Your task to perform on an android device: change keyboard looks Image 0: 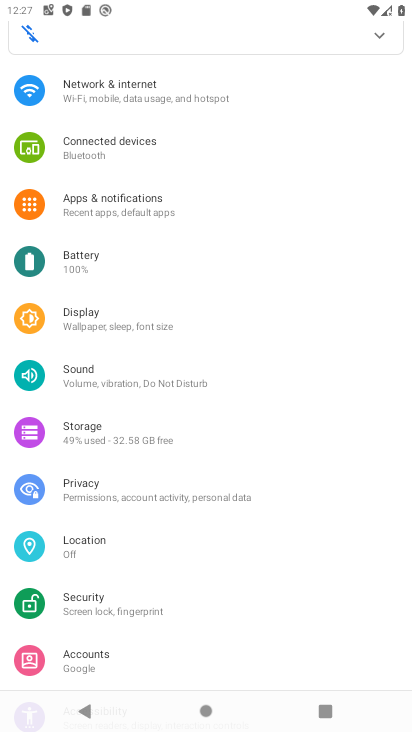
Step 0: drag from (240, 593) to (266, 244)
Your task to perform on an android device: change keyboard looks Image 1: 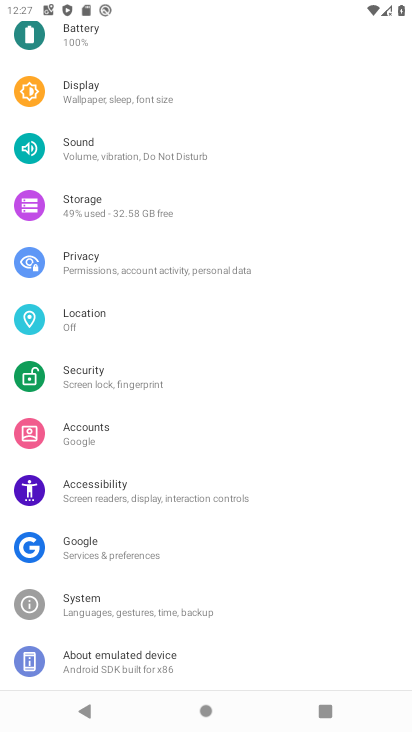
Step 1: click (165, 493)
Your task to perform on an android device: change keyboard looks Image 2: 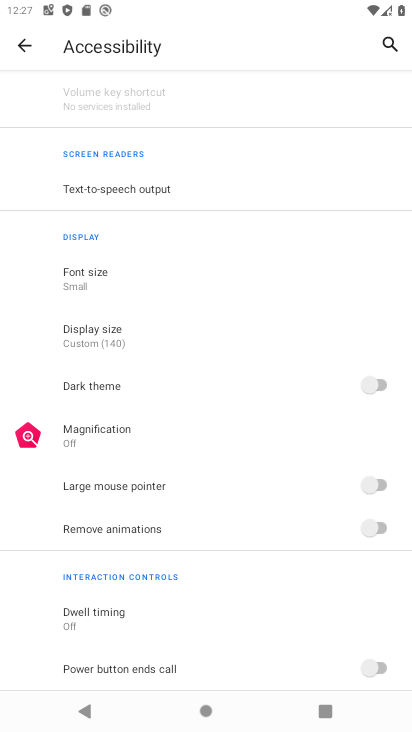
Step 2: press back button
Your task to perform on an android device: change keyboard looks Image 3: 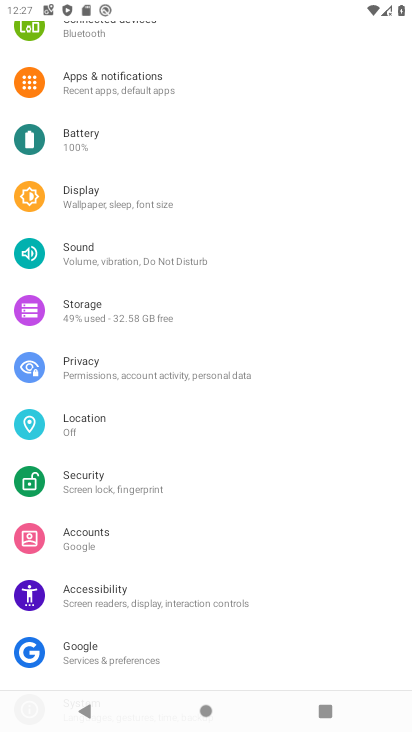
Step 3: click (114, 547)
Your task to perform on an android device: change keyboard looks Image 4: 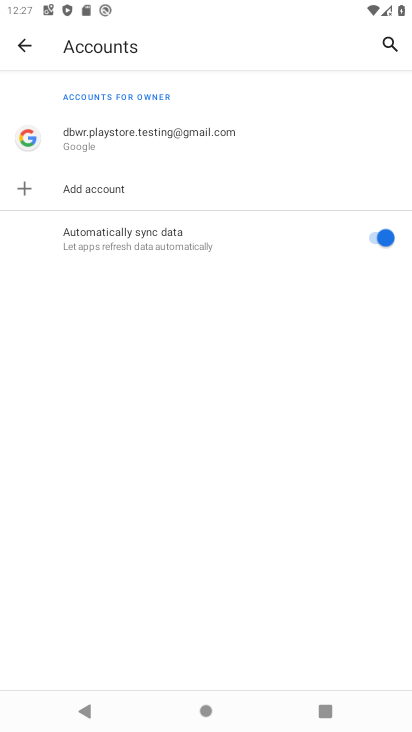
Step 4: press back button
Your task to perform on an android device: change keyboard looks Image 5: 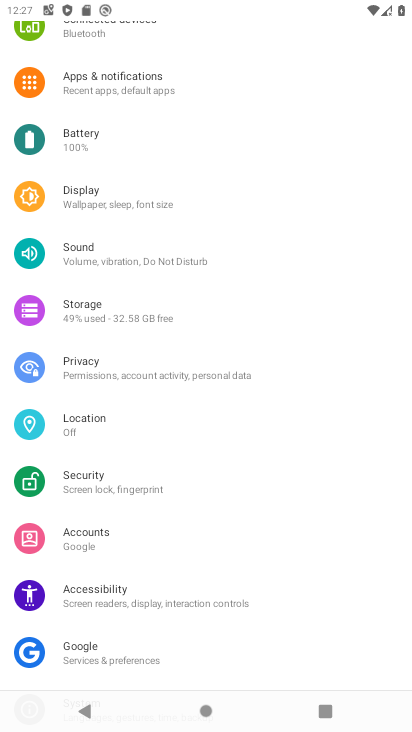
Step 5: drag from (184, 542) to (199, 373)
Your task to perform on an android device: change keyboard looks Image 6: 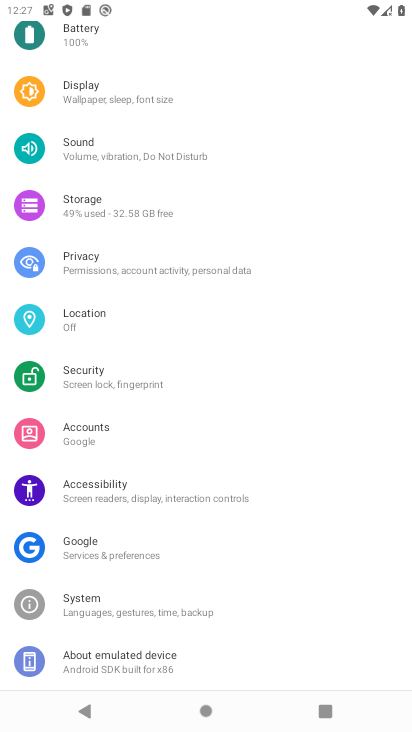
Step 6: click (128, 618)
Your task to perform on an android device: change keyboard looks Image 7: 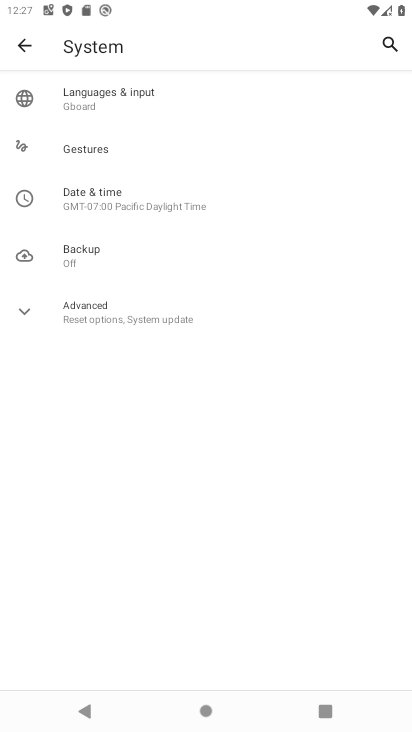
Step 7: click (137, 97)
Your task to perform on an android device: change keyboard looks Image 8: 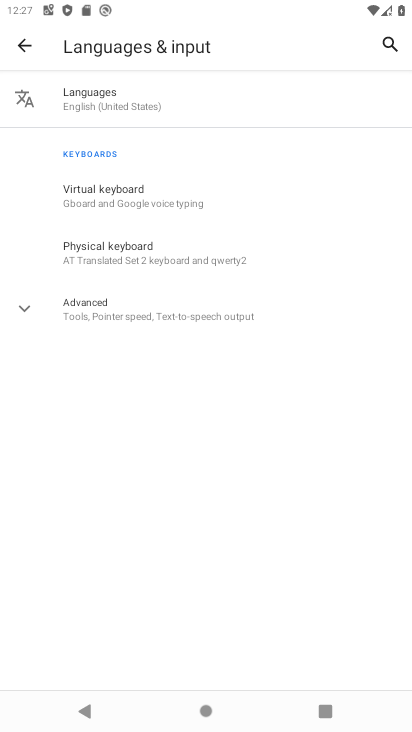
Step 8: click (138, 187)
Your task to perform on an android device: change keyboard looks Image 9: 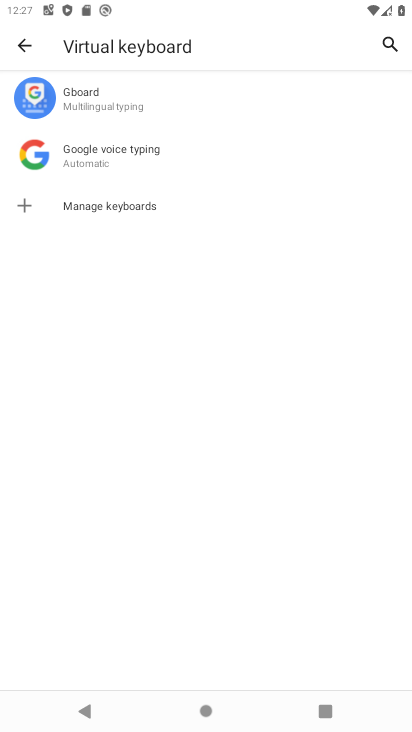
Step 9: click (110, 89)
Your task to perform on an android device: change keyboard looks Image 10: 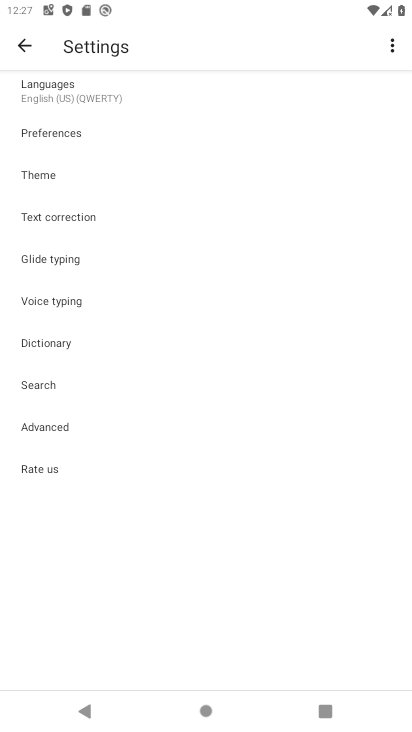
Step 10: click (80, 165)
Your task to perform on an android device: change keyboard looks Image 11: 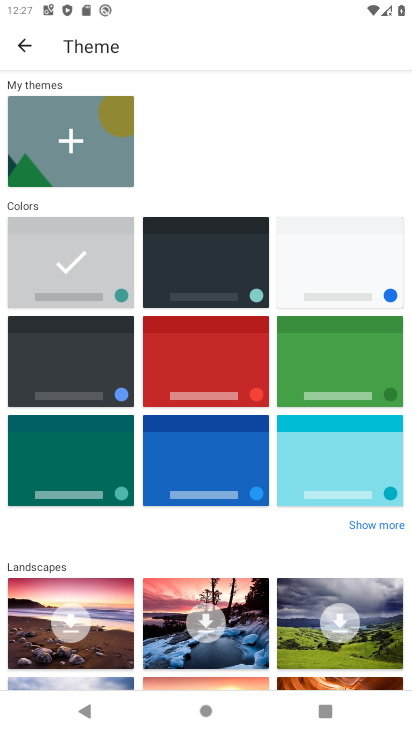
Step 11: click (230, 443)
Your task to perform on an android device: change keyboard looks Image 12: 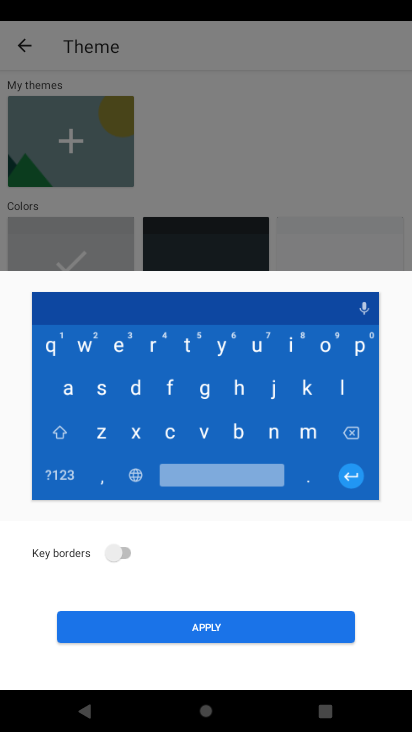
Step 12: click (255, 623)
Your task to perform on an android device: change keyboard looks Image 13: 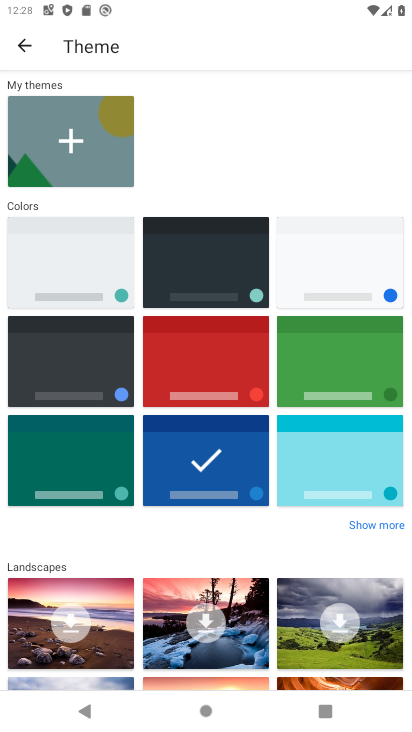
Step 13: task complete